Your task to perform on an android device: Open Amazon Image 0: 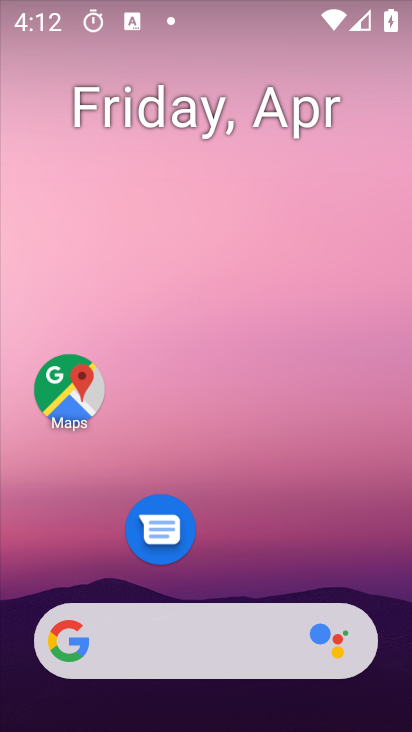
Step 0: drag from (216, 563) to (229, 314)
Your task to perform on an android device: Open Amazon Image 1: 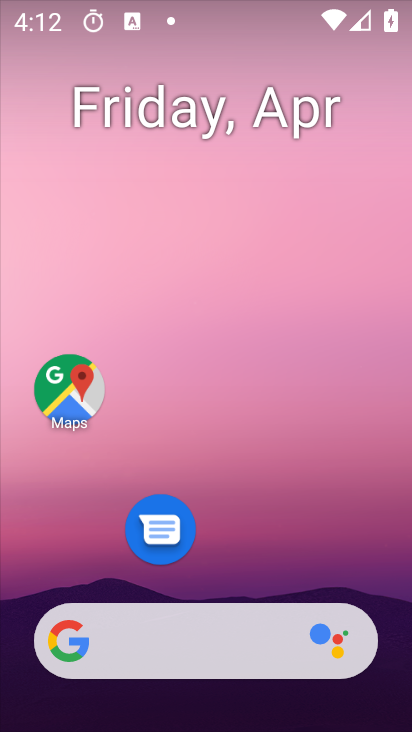
Step 1: drag from (252, 530) to (242, 239)
Your task to perform on an android device: Open Amazon Image 2: 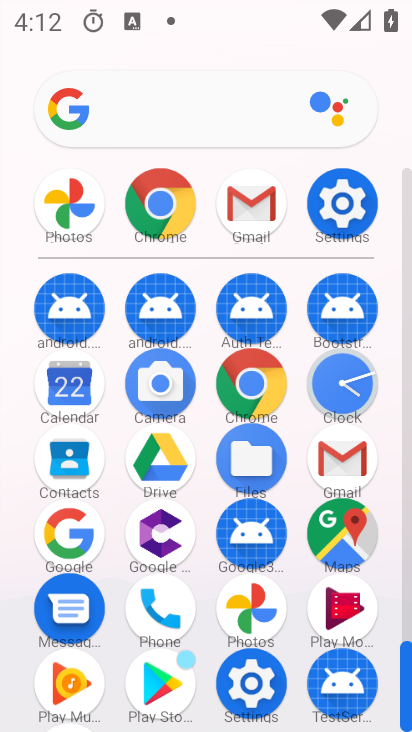
Step 2: click (178, 219)
Your task to perform on an android device: Open Amazon Image 3: 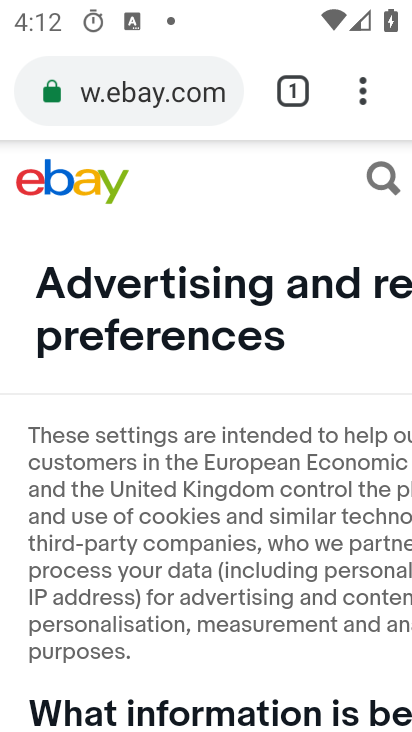
Step 3: click (206, 92)
Your task to perform on an android device: Open Amazon Image 4: 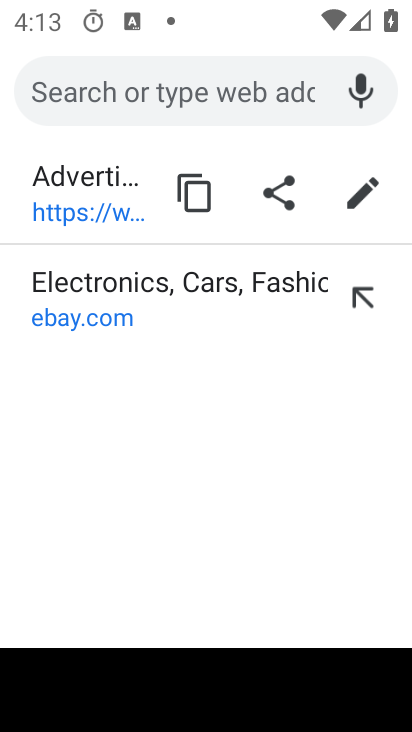
Step 4: type "amazon"
Your task to perform on an android device: Open Amazon Image 5: 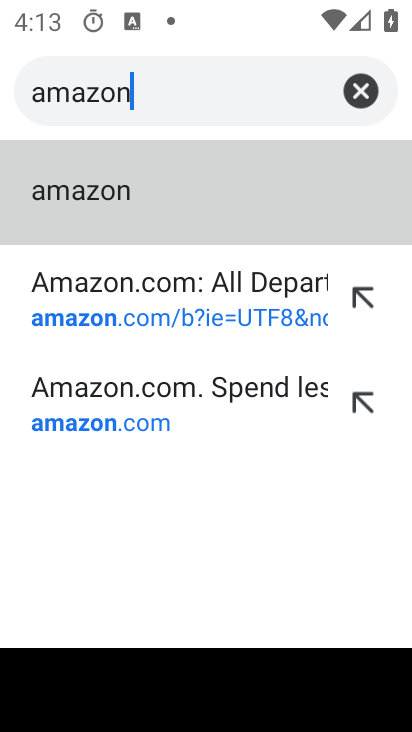
Step 5: click (287, 308)
Your task to perform on an android device: Open Amazon Image 6: 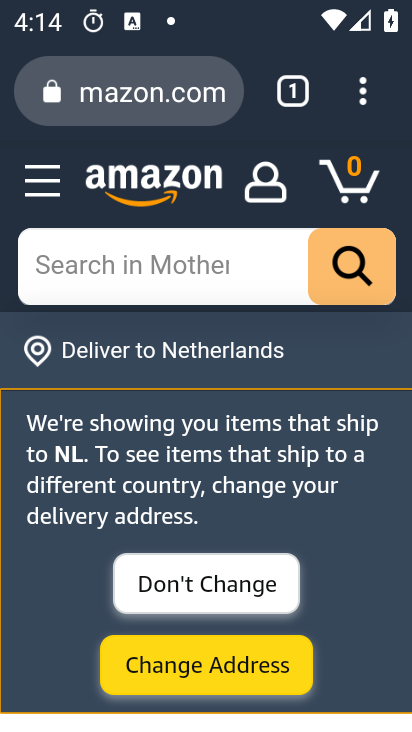
Step 6: task complete